Your task to perform on an android device: Open the calendar app, open the side menu, and click the "Day" option Image 0: 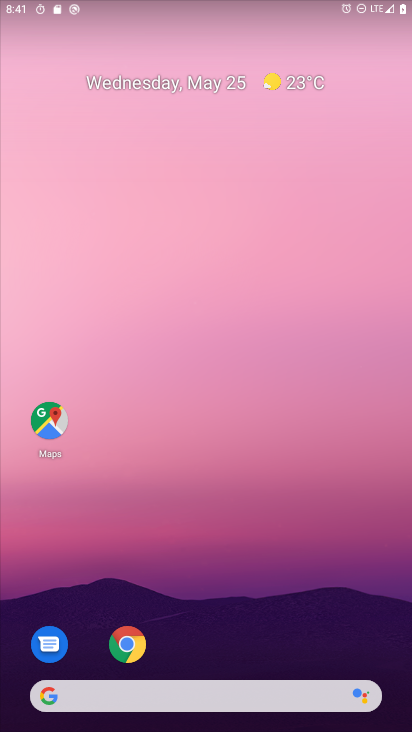
Step 0: drag from (298, 615) to (189, 61)
Your task to perform on an android device: Open the calendar app, open the side menu, and click the "Day" option Image 1: 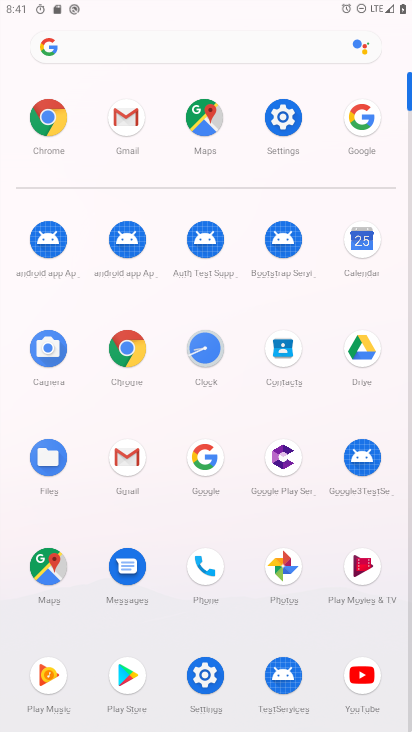
Step 1: click (368, 240)
Your task to perform on an android device: Open the calendar app, open the side menu, and click the "Day" option Image 2: 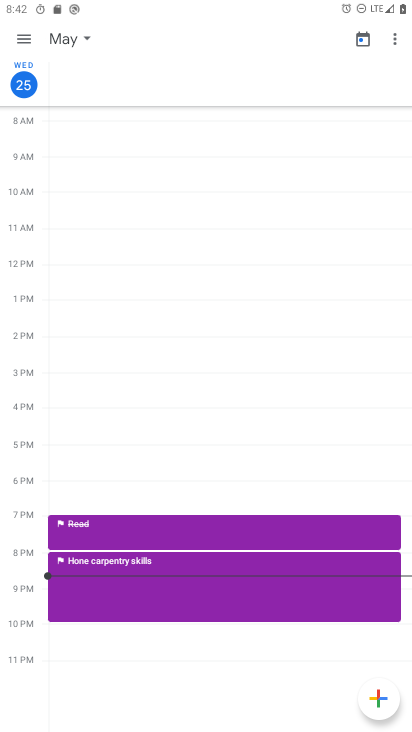
Step 2: click (22, 37)
Your task to perform on an android device: Open the calendar app, open the side menu, and click the "Day" option Image 3: 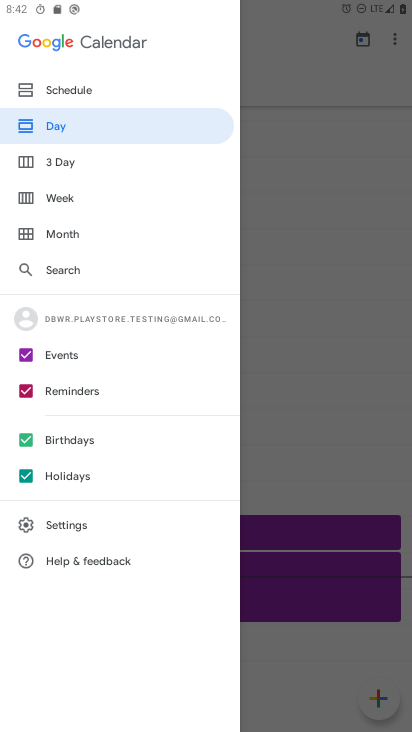
Step 3: click (86, 123)
Your task to perform on an android device: Open the calendar app, open the side menu, and click the "Day" option Image 4: 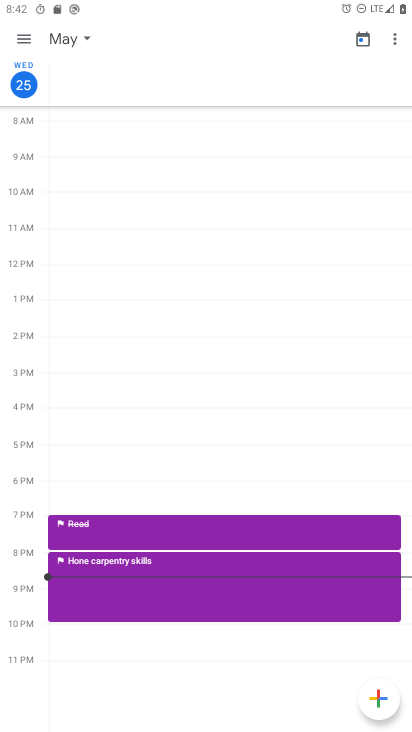
Step 4: task complete